Your task to perform on an android device: Open calendar and show me the third week of next month Image 0: 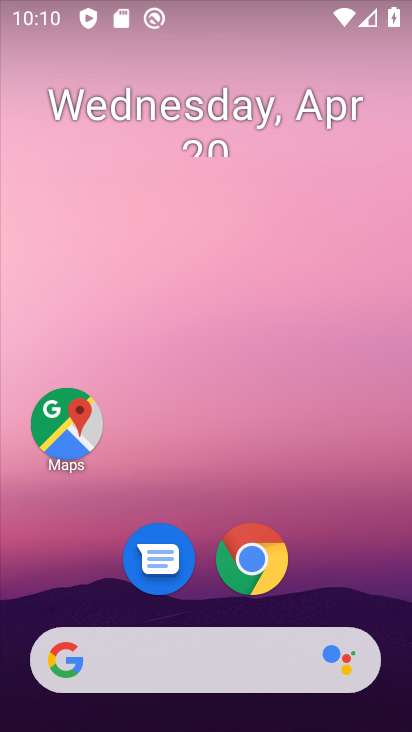
Step 0: drag from (222, 663) to (216, 130)
Your task to perform on an android device: Open calendar and show me the third week of next month Image 1: 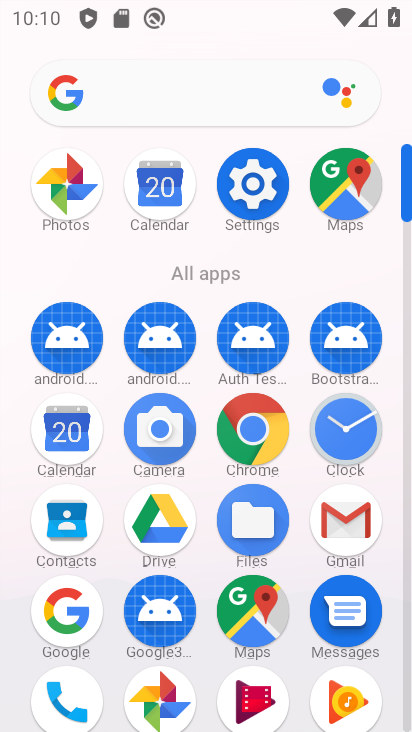
Step 1: click (67, 431)
Your task to perform on an android device: Open calendar and show me the third week of next month Image 2: 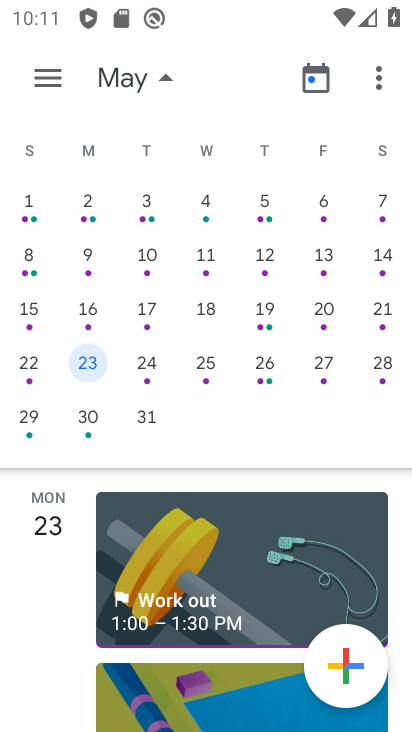
Step 2: click (86, 309)
Your task to perform on an android device: Open calendar and show me the third week of next month Image 3: 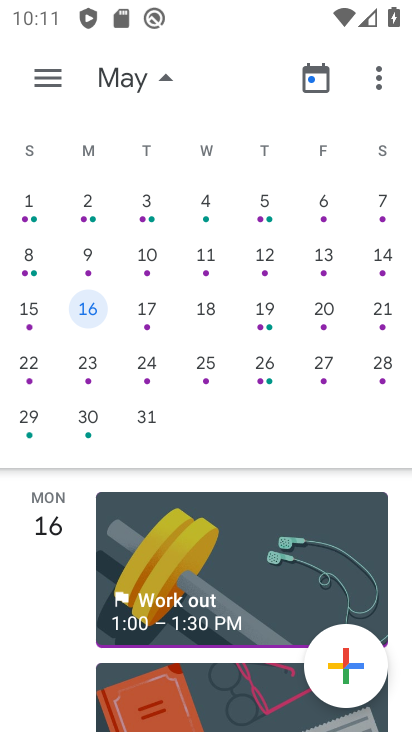
Step 3: task complete